Your task to perform on an android device: find snoozed emails in the gmail app Image 0: 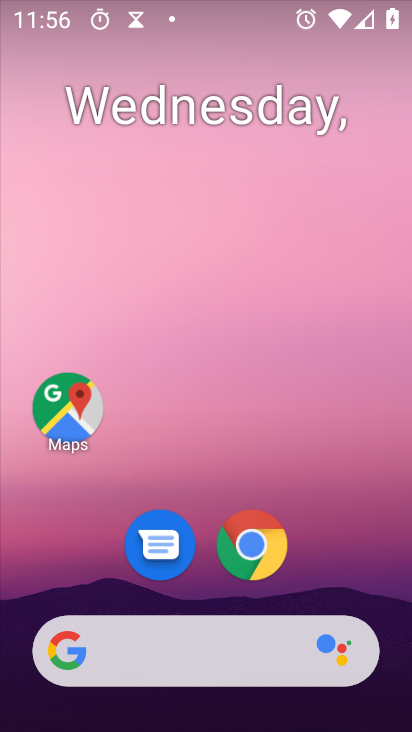
Step 0: press home button
Your task to perform on an android device: find snoozed emails in the gmail app Image 1: 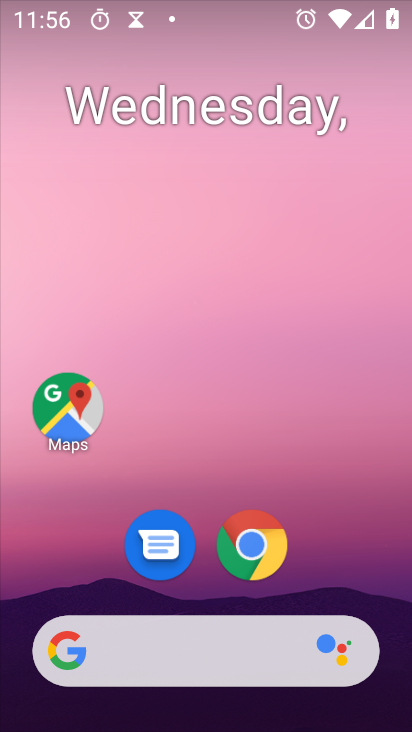
Step 1: drag from (176, 643) to (311, 106)
Your task to perform on an android device: find snoozed emails in the gmail app Image 2: 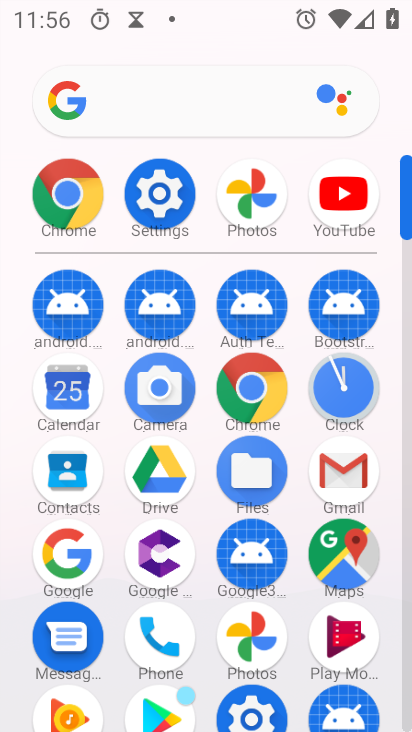
Step 2: click (346, 479)
Your task to perform on an android device: find snoozed emails in the gmail app Image 3: 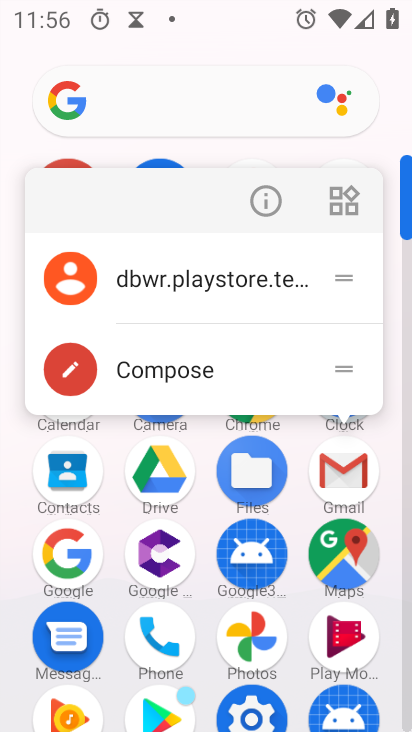
Step 3: click (346, 480)
Your task to perform on an android device: find snoozed emails in the gmail app Image 4: 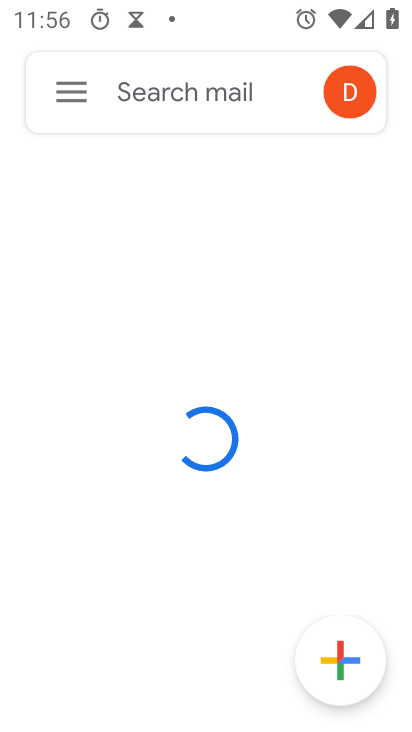
Step 4: click (75, 86)
Your task to perform on an android device: find snoozed emails in the gmail app Image 5: 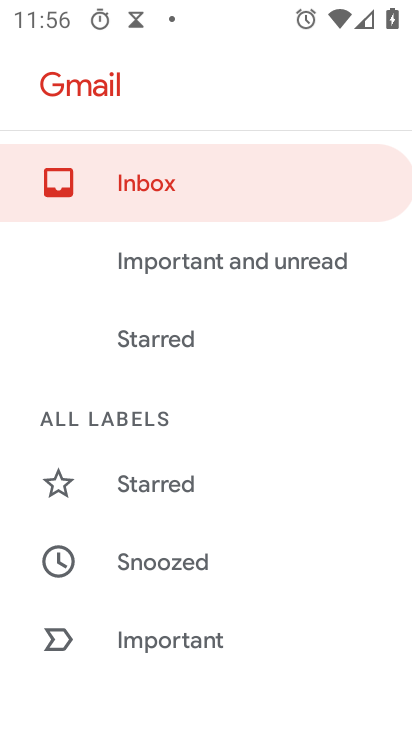
Step 5: click (175, 564)
Your task to perform on an android device: find snoozed emails in the gmail app Image 6: 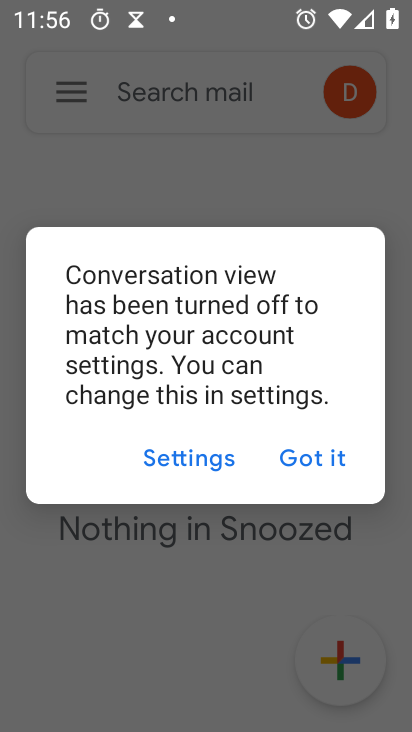
Step 6: click (295, 481)
Your task to perform on an android device: find snoozed emails in the gmail app Image 7: 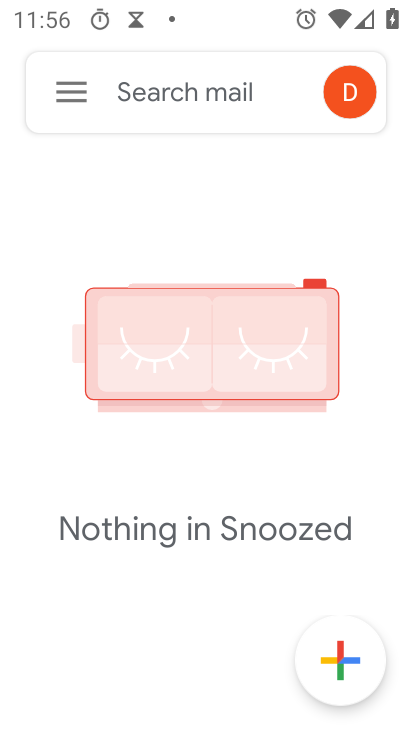
Step 7: task complete